Your task to perform on an android device: Open Maps and search for coffee Image 0: 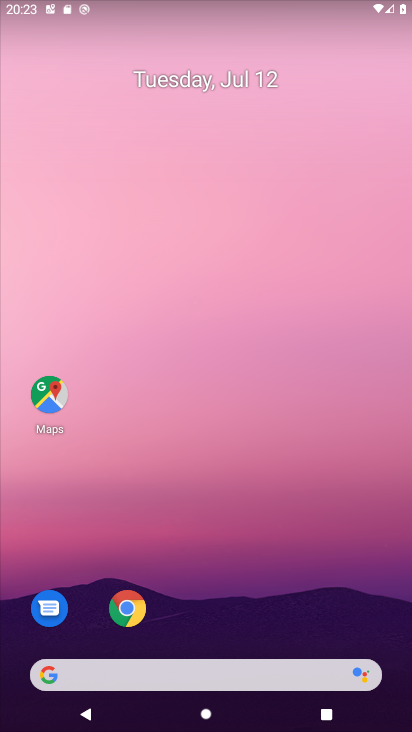
Step 0: click (48, 393)
Your task to perform on an android device: Open Maps and search for coffee Image 1: 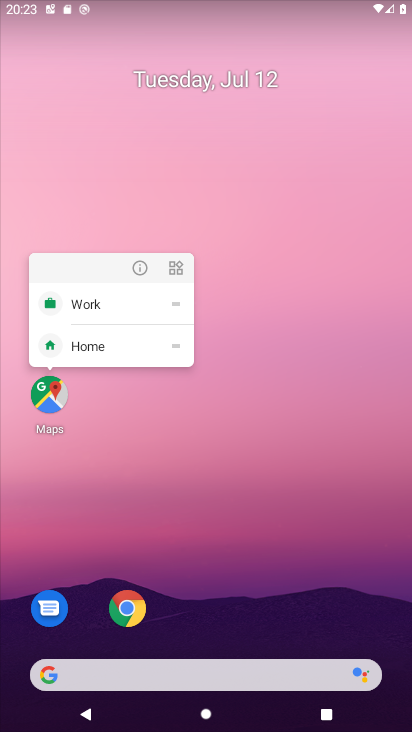
Step 1: click (45, 400)
Your task to perform on an android device: Open Maps and search for coffee Image 2: 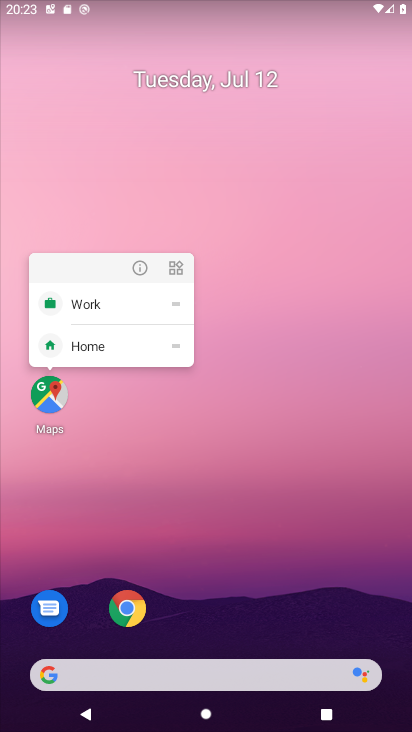
Step 2: click (45, 399)
Your task to perform on an android device: Open Maps and search for coffee Image 3: 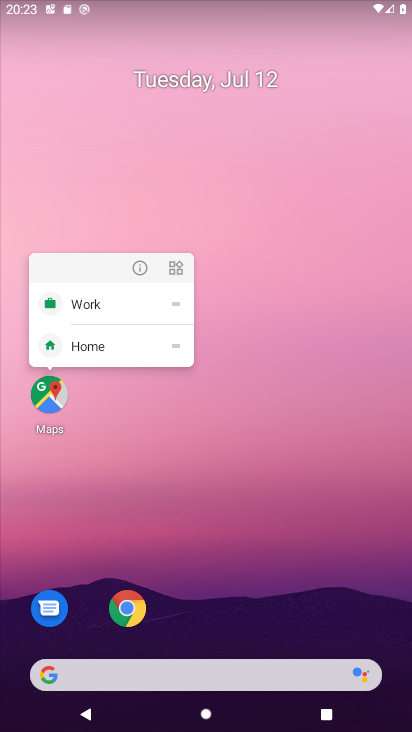
Step 3: click (49, 396)
Your task to perform on an android device: Open Maps and search for coffee Image 4: 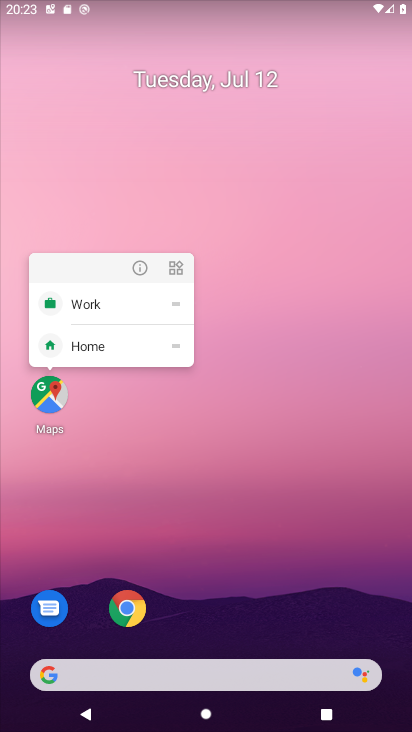
Step 4: click (51, 396)
Your task to perform on an android device: Open Maps and search for coffee Image 5: 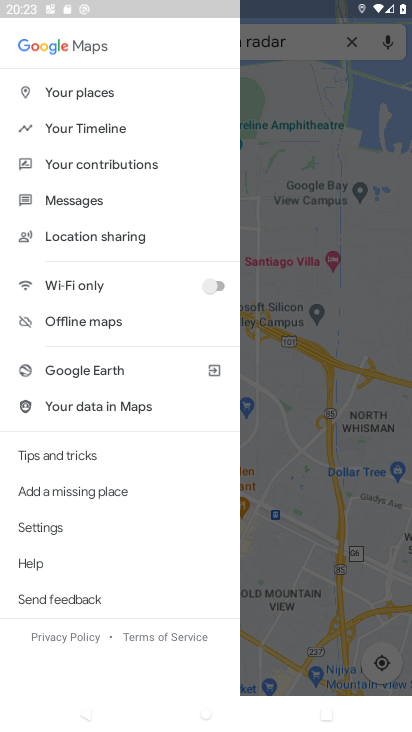
Step 5: click (300, 47)
Your task to perform on an android device: Open Maps and search for coffee Image 6: 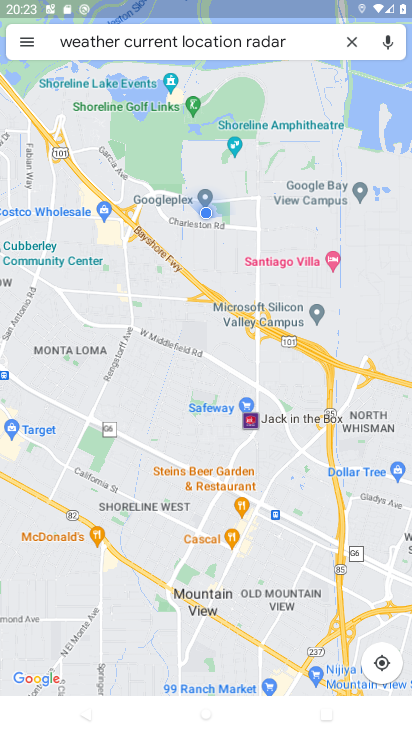
Step 6: click (349, 39)
Your task to perform on an android device: Open Maps and search for coffee Image 7: 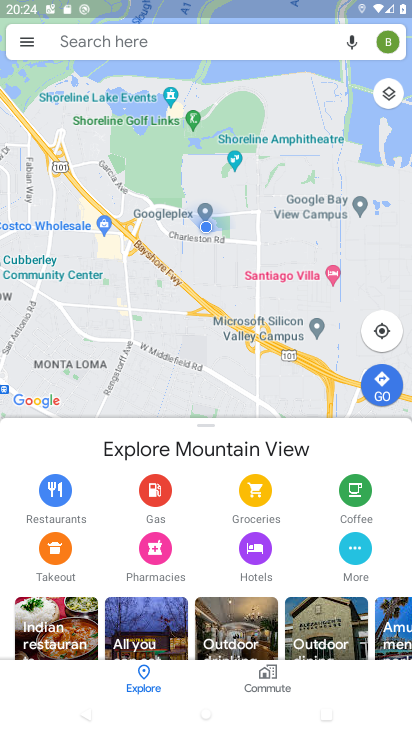
Step 7: click (207, 37)
Your task to perform on an android device: Open Maps and search for coffee Image 8: 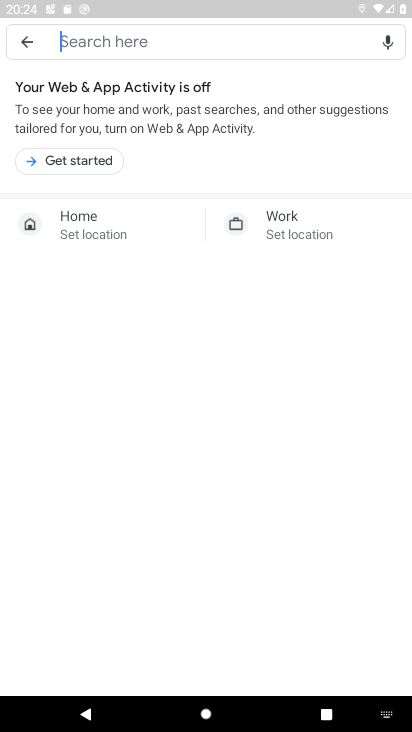
Step 8: click (103, 167)
Your task to perform on an android device: Open Maps and search for coffee Image 9: 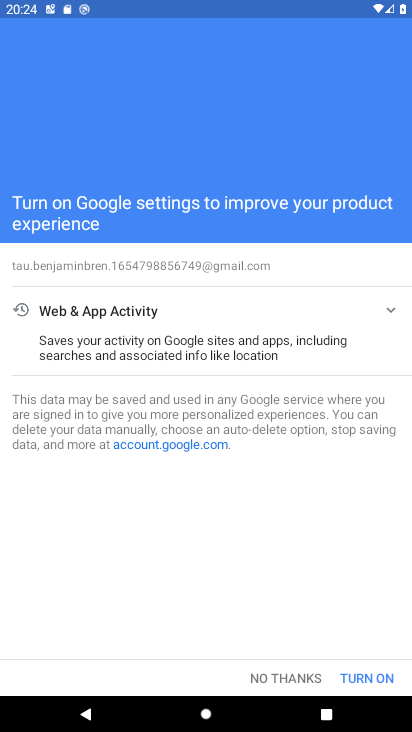
Step 9: click (353, 681)
Your task to perform on an android device: Open Maps and search for coffee Image 10: 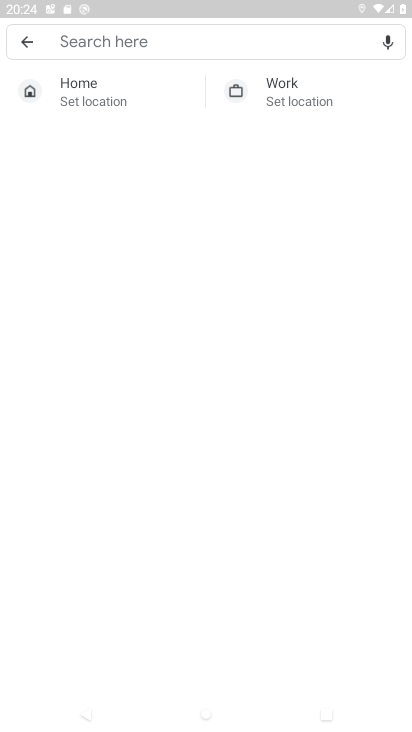
Step 10: click (144, 38)
Your task to perform on an android device: Open Maps and search for coffee Image 11: 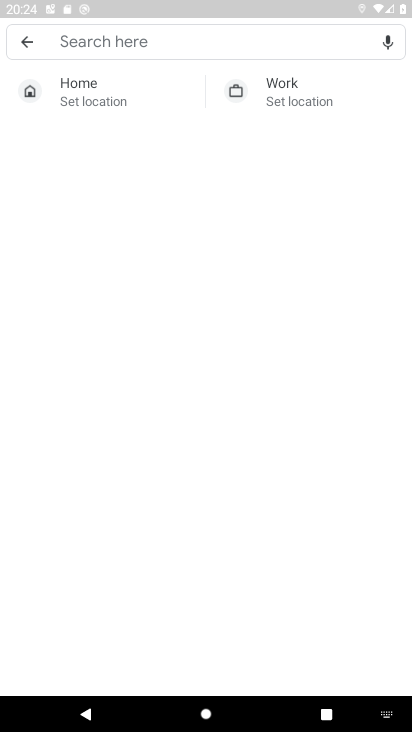
Step 11: type "coffee"
Your task to perform on an android device: Open Maps and search for coffee Image 12: 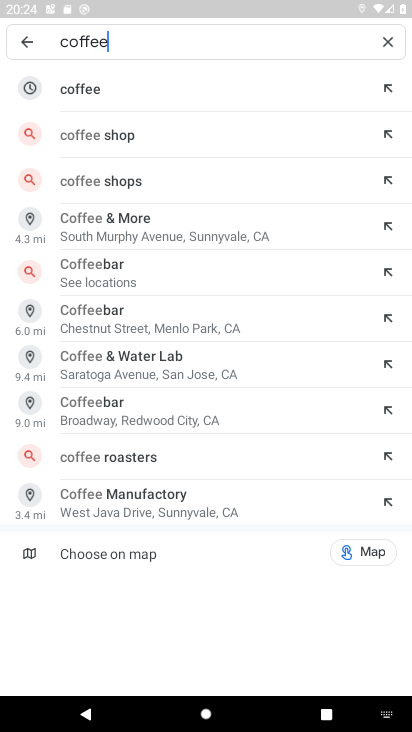
Step 12: click (74, 92)
Your task to perform on an android device: Open Maps and search for coffee Image 13: 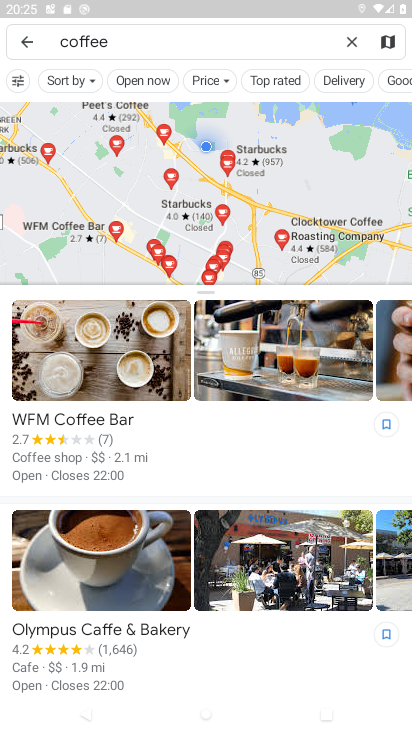
Step 13: task complete